Your task to perform on an android device: create a new album in the google photos Image 0: 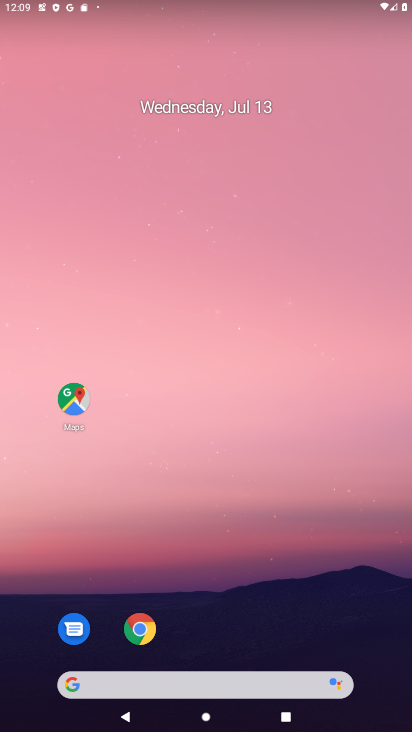
Step 0: drag from (247, 568) to (271, 134)
Your task to perform on an android device: create a new album in the google photos Image 1: 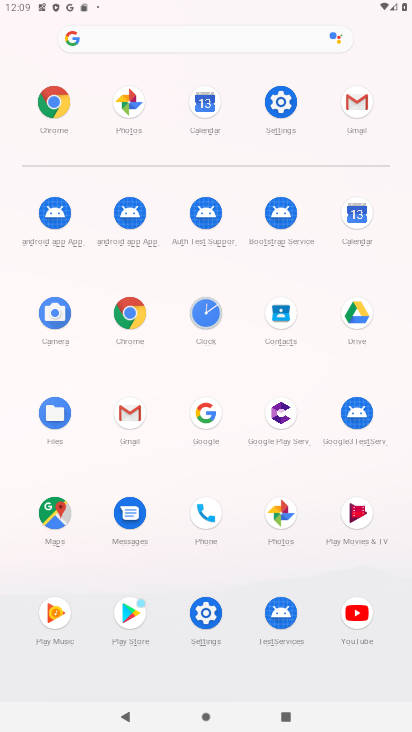
Step 1: click (276, 506)
Your task to perform on an android device: create a new album in the google photos Image 2: 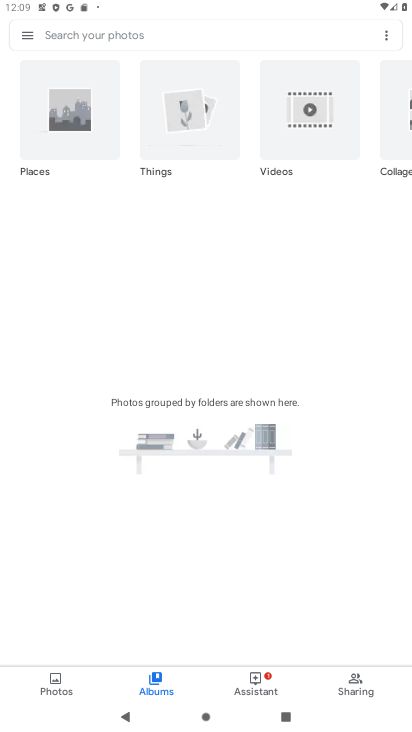
Step 2: click (53, 676)
Your task to perform on an android device: create a new album in the google photos Image 3: 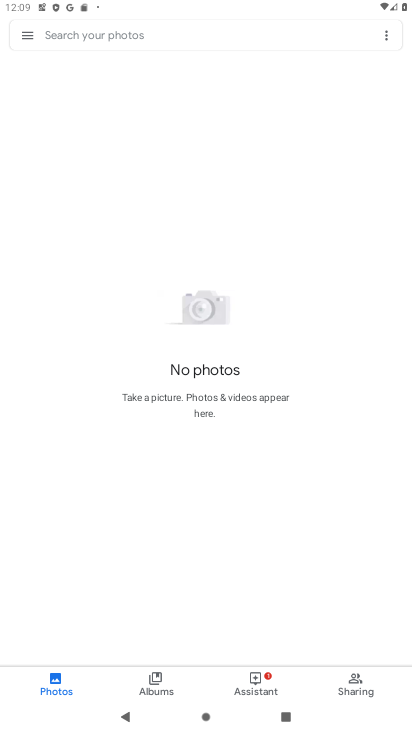
Step 3: task complete